Your task to perform on an android device: Open internet settings Image 0: 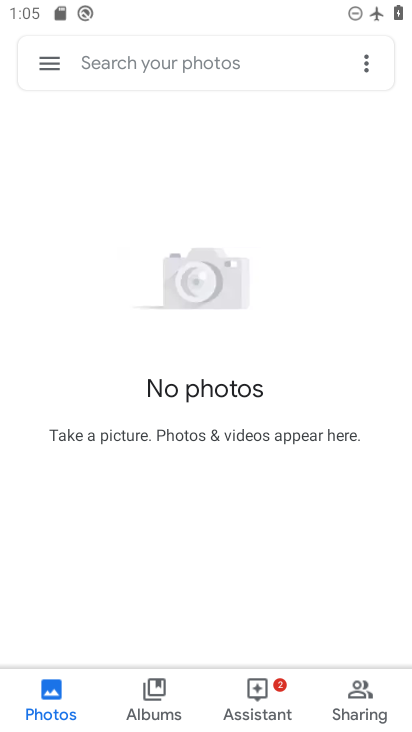
Step 0: press home button
Your task to perform on an android device: Open internet settings Image 1: 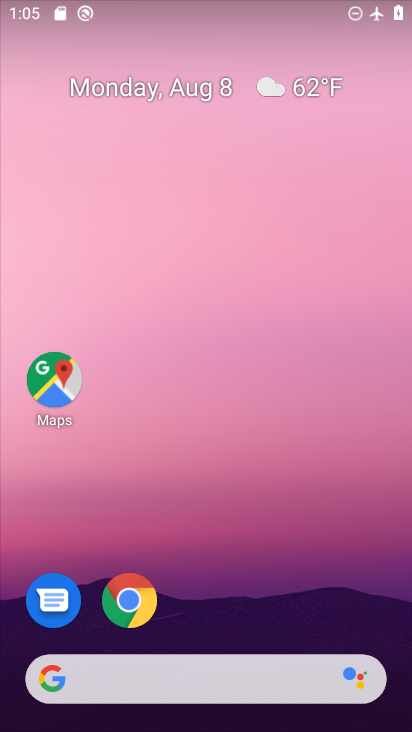
Step 1: drag from (229, 597) to (229, 138)
Your task to perform on an android device: Open internet settings Image 2: 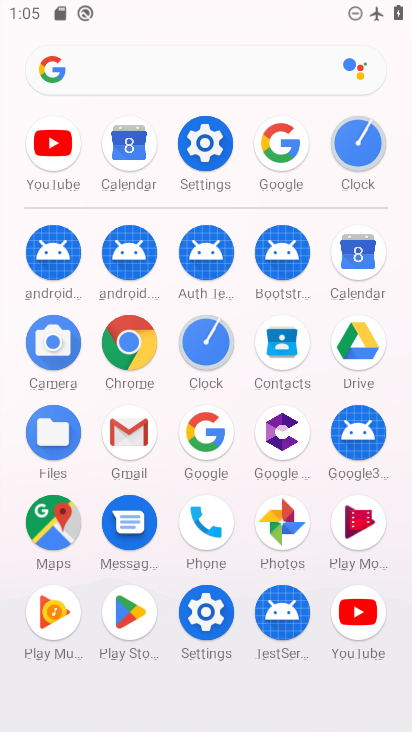
Step 2: click (215, 161)
Your task to perform on an android device: Open internet settings Image 3: 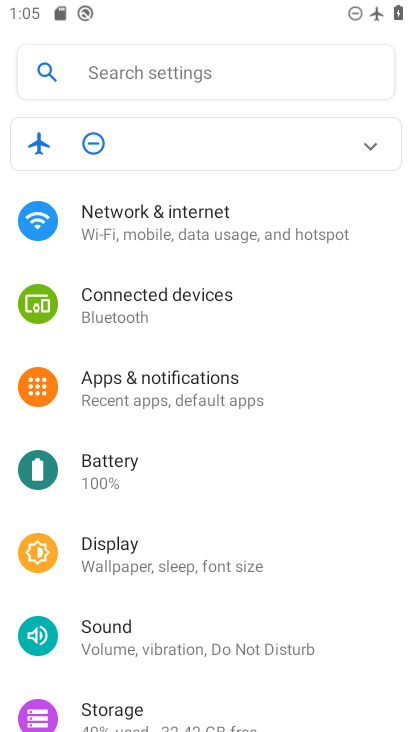
Step 3: click (172, 229)
Your task to perform on an android device: Open internet settings Image 4: 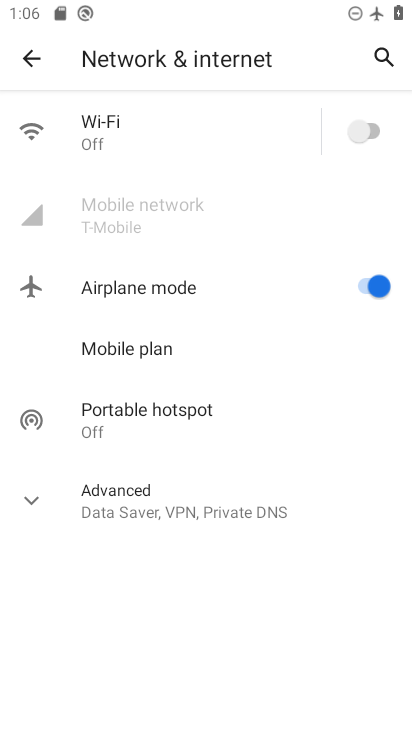
Step 4: task complete